Your task to perform on an android device: When is my next meeting? Image 0: 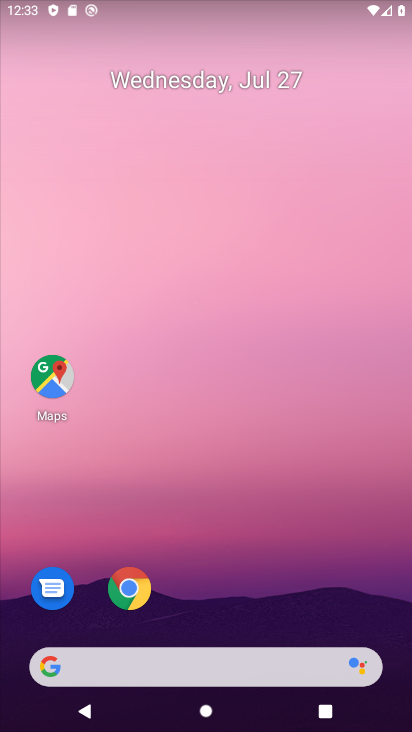
Step 0: drag from (208, 565) to (309, 9)
Your task to perform on an android device: When is my next meeting? Image 1: 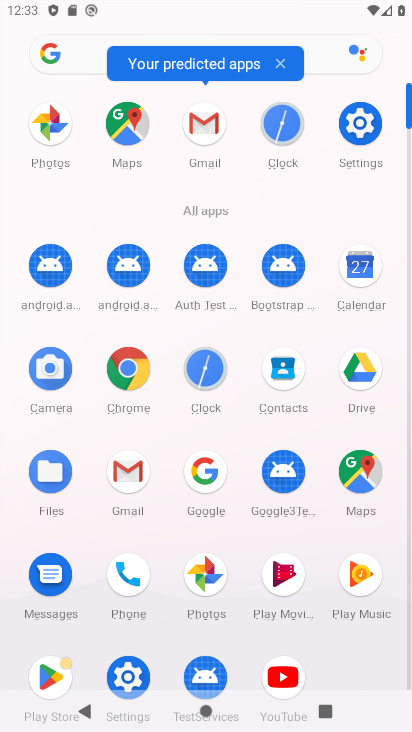
Step 1: click (349, 265)
Your task to perform on an android device: When is my next meeting? Image 2: 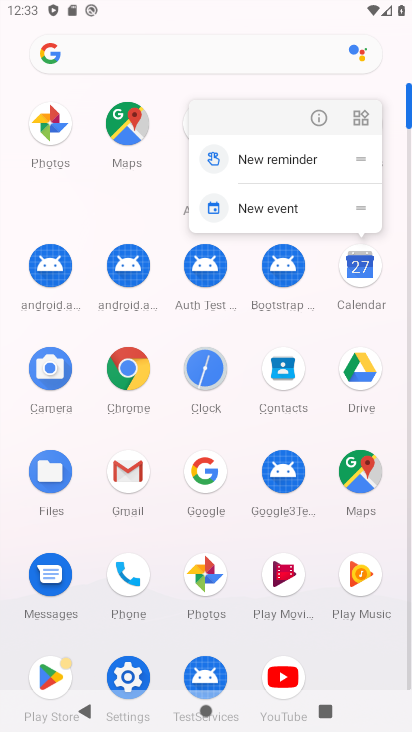
Step 2: click (354, 265)
Your task to perform on an android device: When is my next meeting? Image 3: 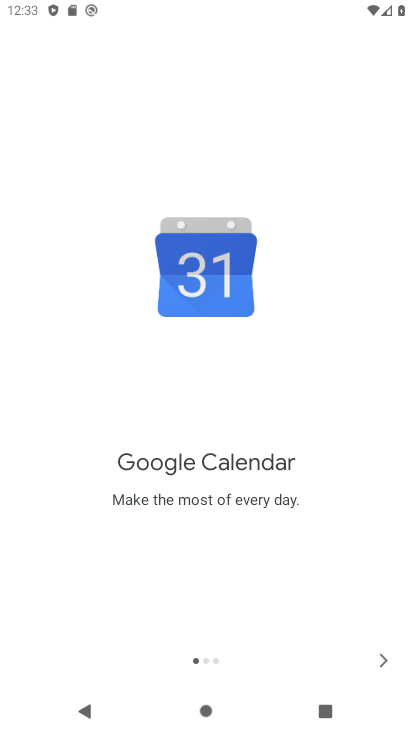
Step 3: click (383, 665)
Your task to perform on an android device: When is my next meeting? Image 4: 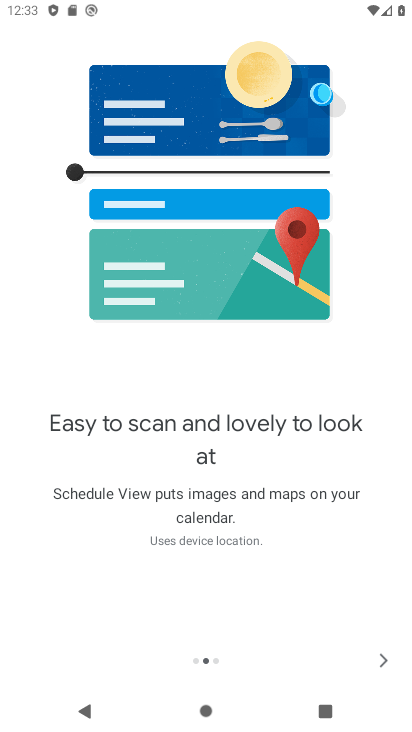
Step 4: click (383, 664)
Your task to perform on an android device: When is my next meeting? Image 5: 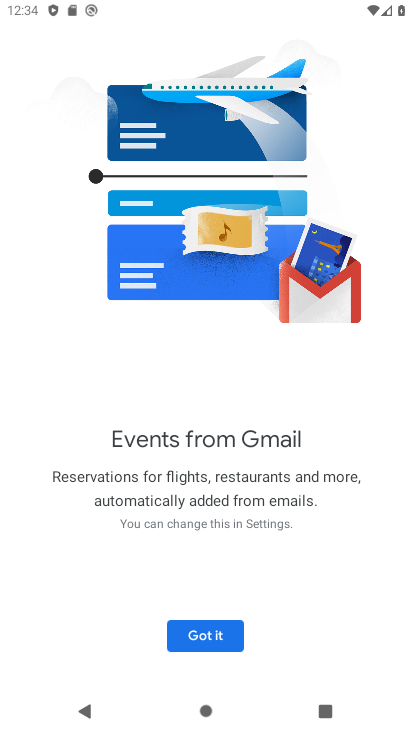
Step 5: click (212, 629)
Your task to perform on an android device: When is my next meeting? Image 6: 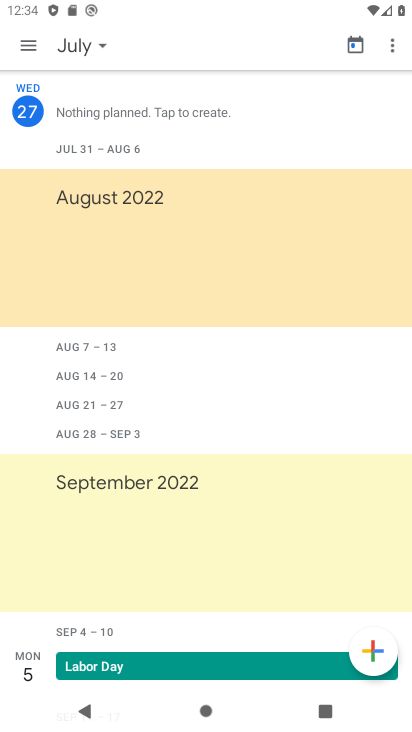
Step 6: task complete